Your task to perform on an android device: turn off priority inbox in the gmail app Image 0: 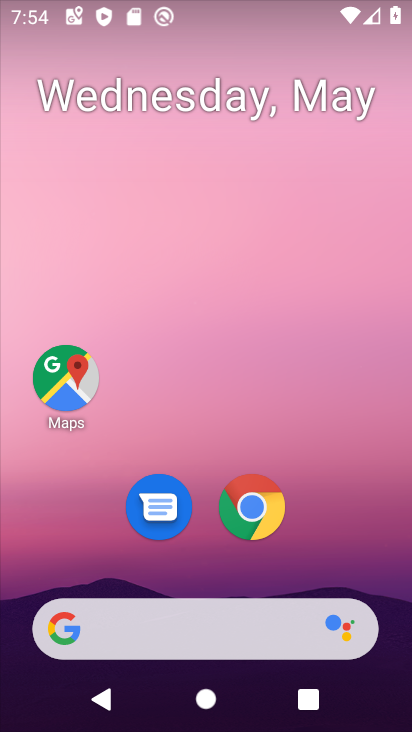
Step 0: drag from (322, 510) to (294, 296)
Your task to perform on an android device: turn off priority inbox in the gmail app Image 1: 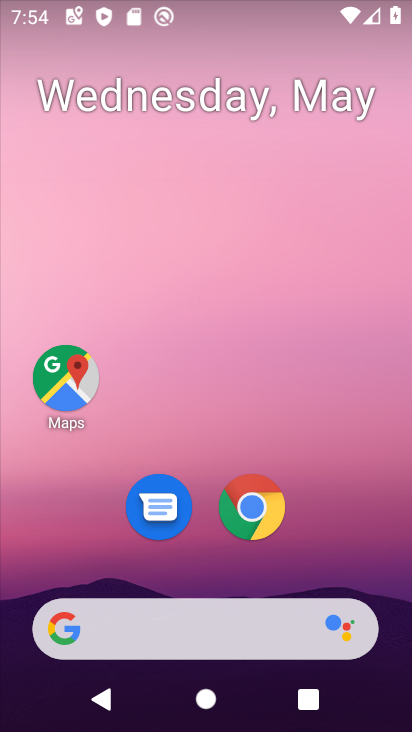
Step 1: drag from (289, 536) to (254, 171)
Your task to perform on an android device: turn off priority inbox in the gmail app Image 2: 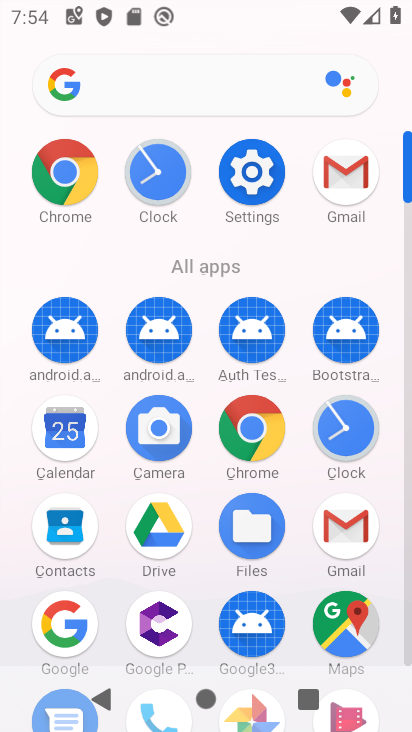
Step 2: click (342, 521)
Your task to perform on an android device: turn off priority inbox in the gmail app Image 3: 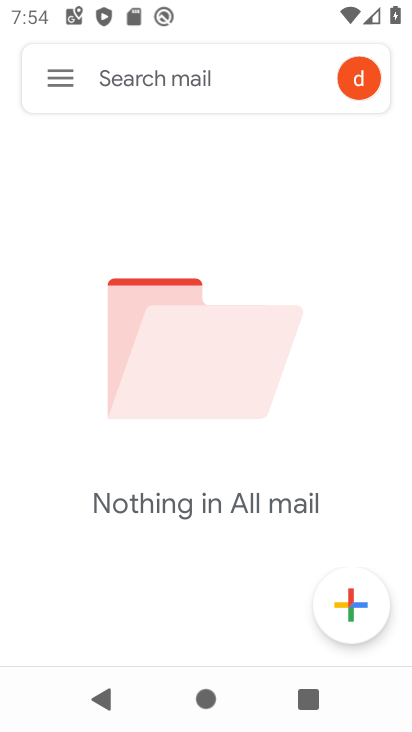
Step 3: click (52, 68)
Your task to perform on an android device: turn off priority inbox in the gmail app Image 4: 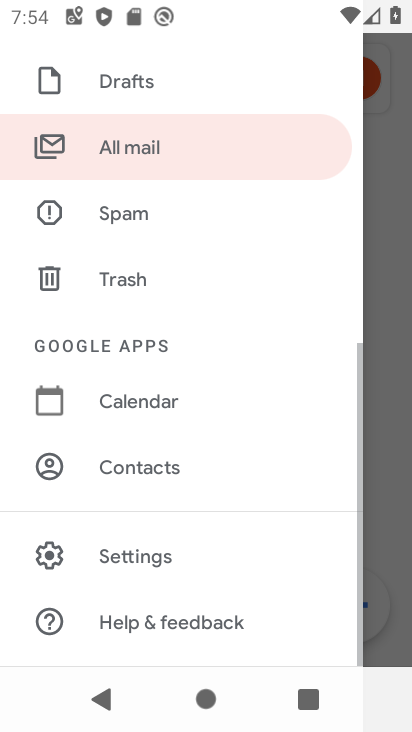
Step 4: click (171, 557)
Your task to perform on an android device: turn off priority inbox in the gmail app Image 5: 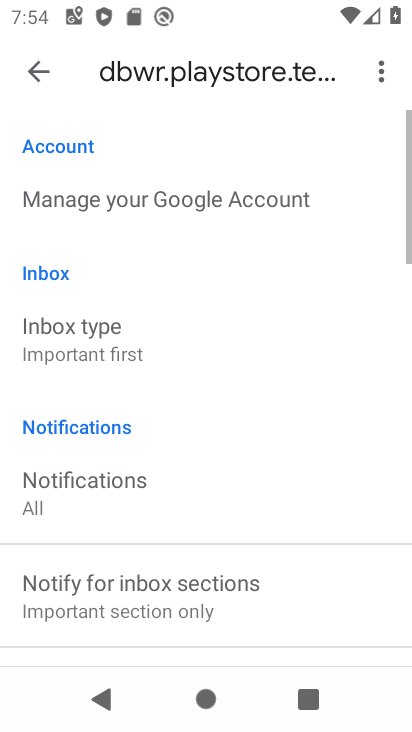
Step 5: click (120, 343)
Your task to perform on an android device: turn off priority inbox in the gmail app Image 6: 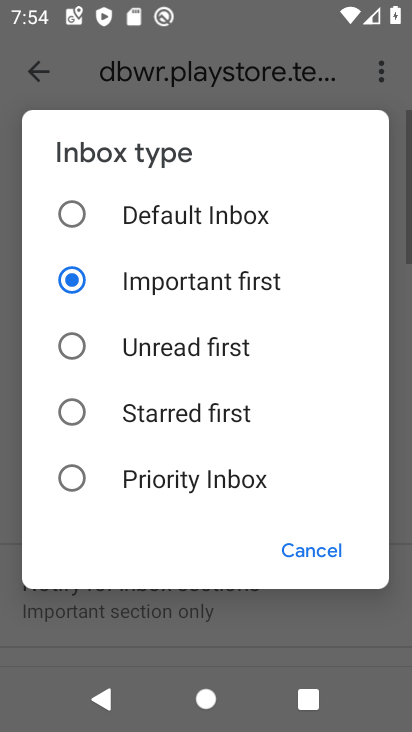
Step 6: click (101, 226)
Your task to perform on an android device: turn off priority inbox in the gmail app Image 7: 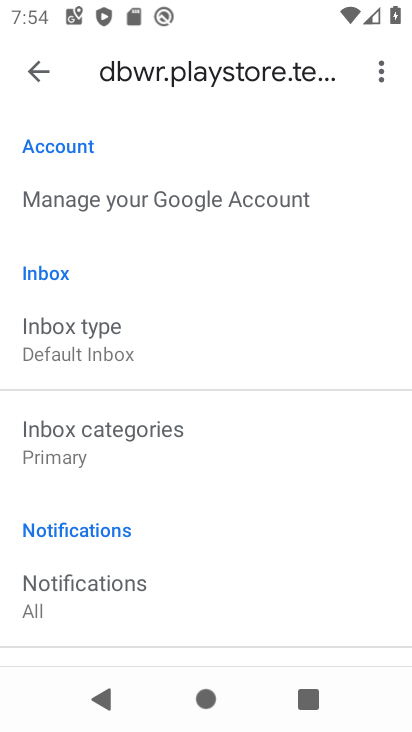
Step 7: task complete